Your task to perform on an android device: change the clock display to digital Image 0: 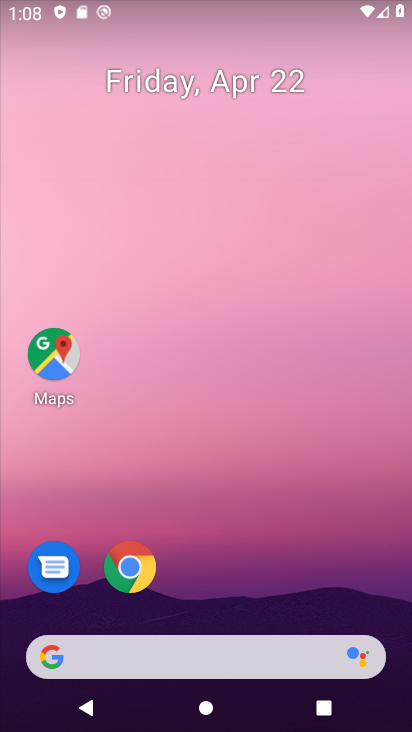
Step 0: drag from (259, 611) to (325, 100)
Your task to perform on an android device: change the clock display to digital Image 1: 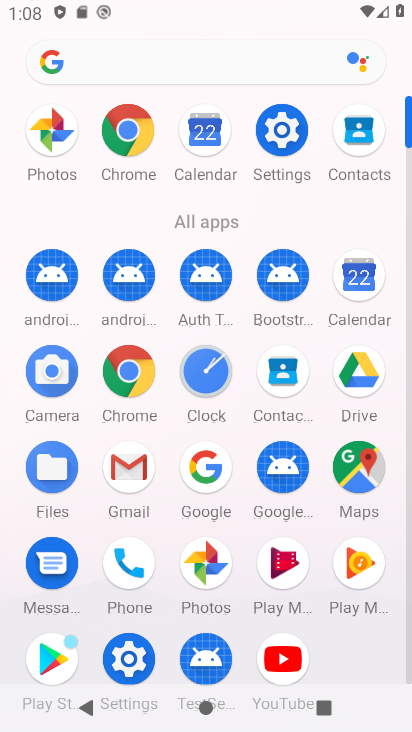
Step 1: click (211, 371)
Your task to perform on an android device: change the clock display to digital Image 2: 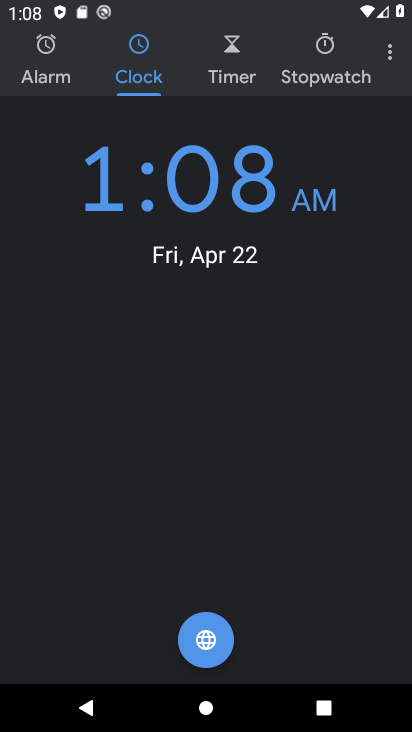
Step 2: click (396, 50)
Your task to perform on an android device: change the clock display to digital Image 3: 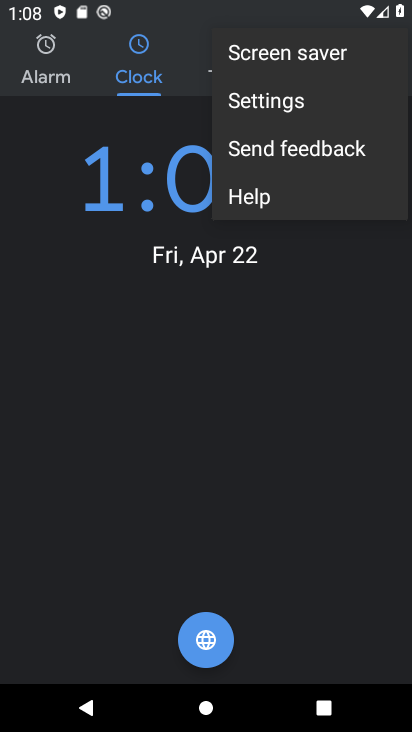
Step 3: click (344, 98)
Your task to perform on an android device: change the clock display to digital Image 4: 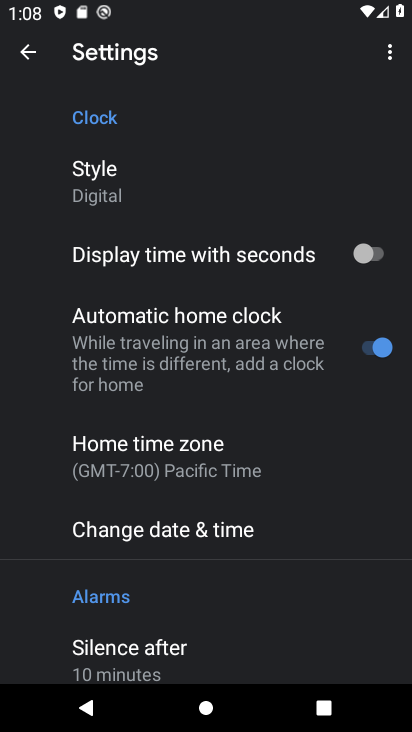
Step 4: click (98, 184)
Your task to perform on an android device: change the clock display to digital Image 5: 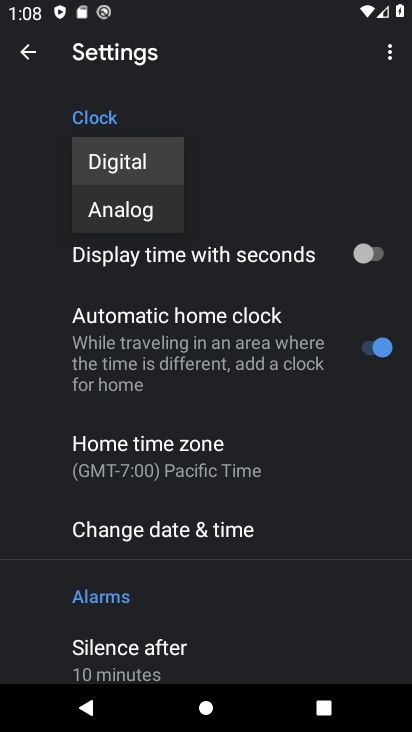
Step 5: click (121, 168)
Your task to perform on an android device: change the clock display to digital Image 6: 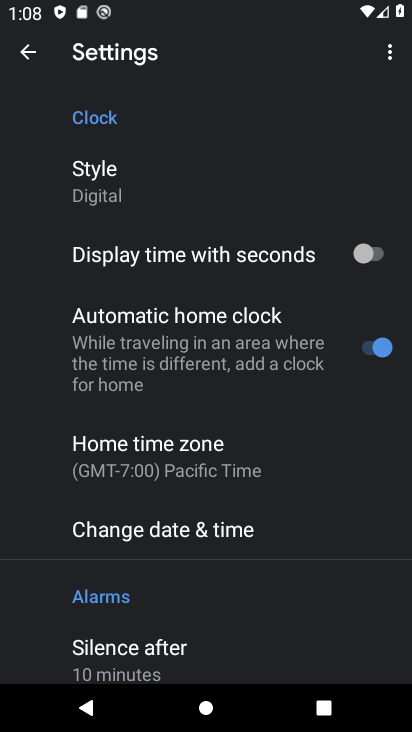
Step 6: task complete